Your task to perform on an android device: Go to Google Image 0: 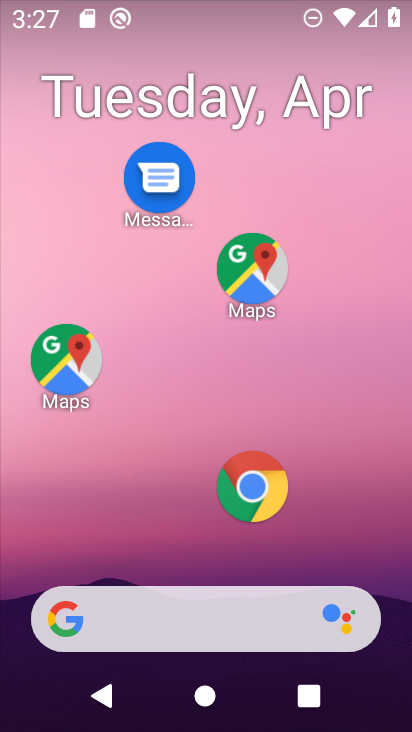
Step 0: drag from (191, 581) to (168, 99)
Your task to perform on an android device: Go to Google Image 1: 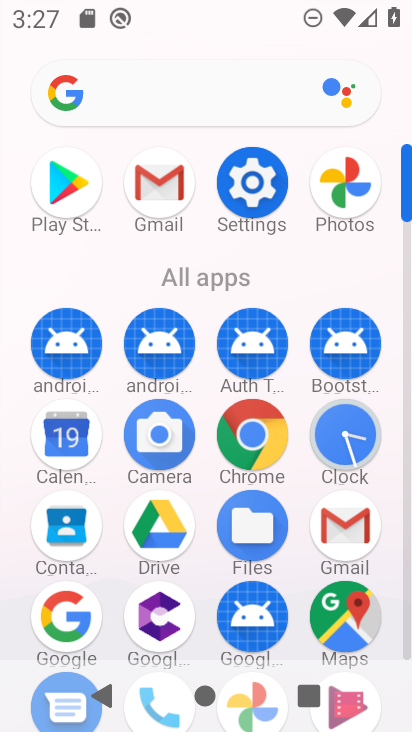
Step 1: click (58, 626)
Your task to perform on an android device: Go to Google Image 2: 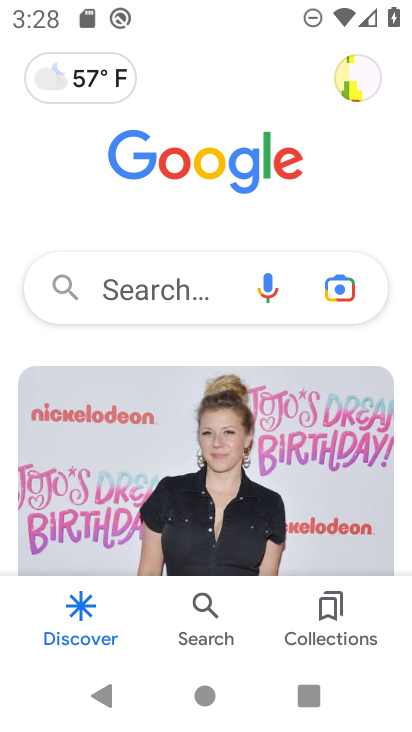
Step 2: task complete